Your task to perform on an android device: visit the assistant section in the google photos Image 0: 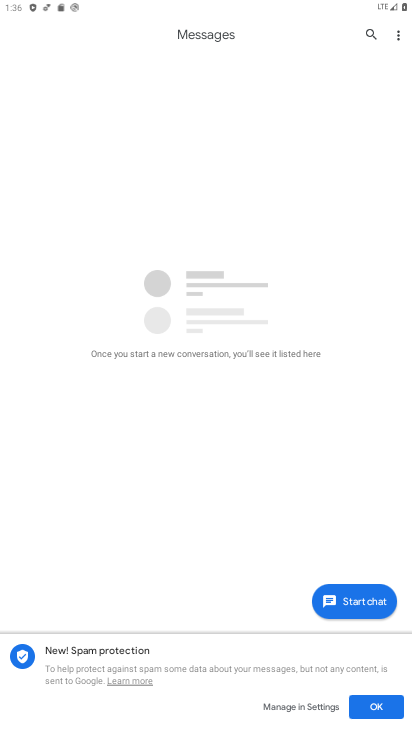
Step 0: press home button
Your task to perform on an android device: visit the assistant section in the google photos Image 1: 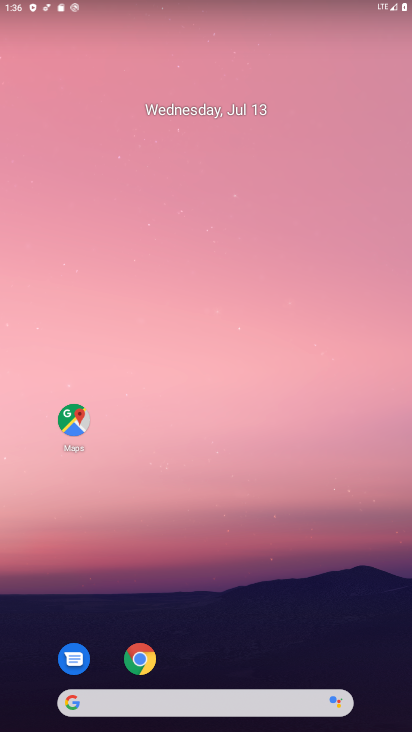
Step 1: drag from (387, 653) to (357, 197)
Your task to perform on an android device: visit the assistant section in the google photos Image 2: 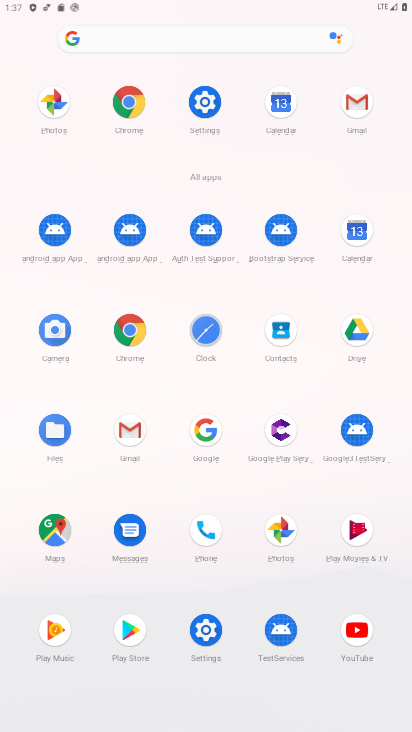
Step 2: click (281, 532)
Your task to perform on an android device: visit the assistant section in the google photos Image 3: 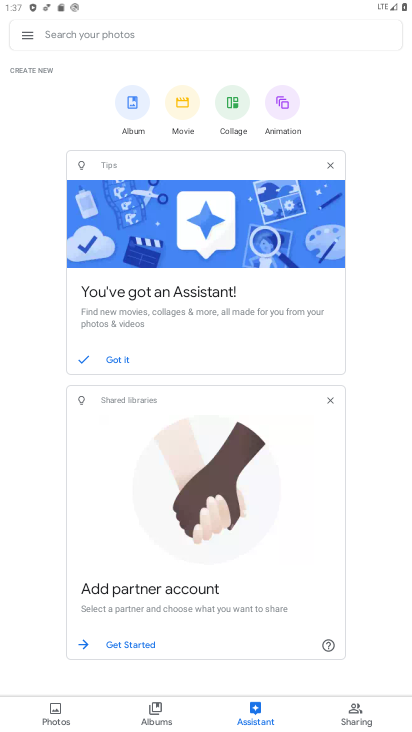
Step 3: task complete